Your task to perform on an android device: Go to Android settings Image 0: 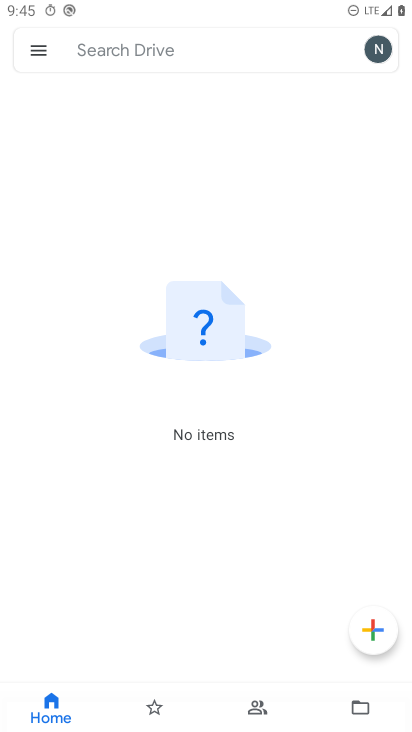
Step 0: press home button
Your task to perform on an android device: Go to Android settings Image 1: 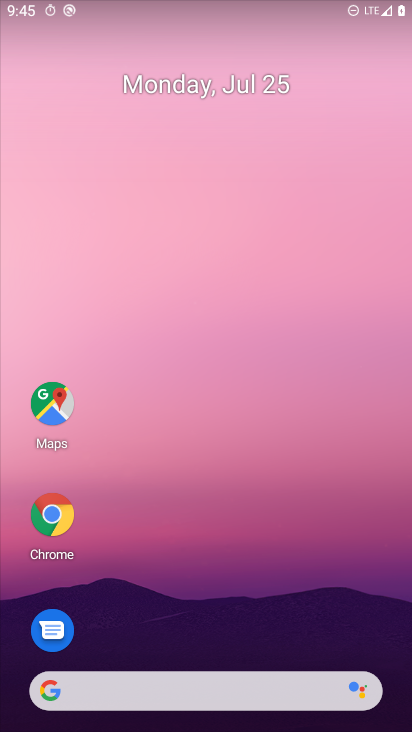
Step 1: drag from (29, 688) to (219, 191)
Your task to perform on an android device: Go to Android settings Image 2: 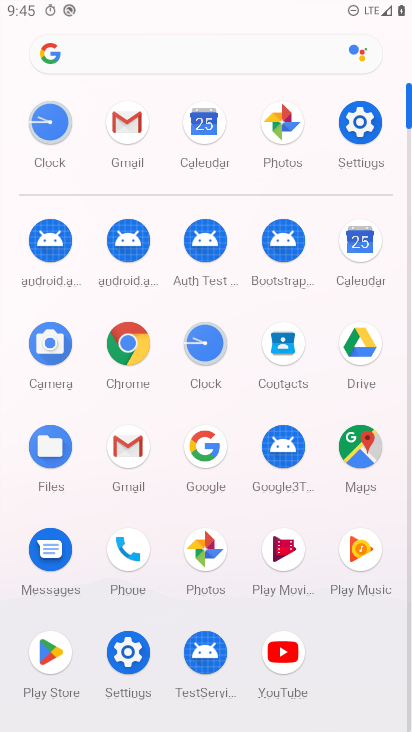
Step 2: click (130, 671)
Your task to perform on an android device: Go to Android settings Image 3: 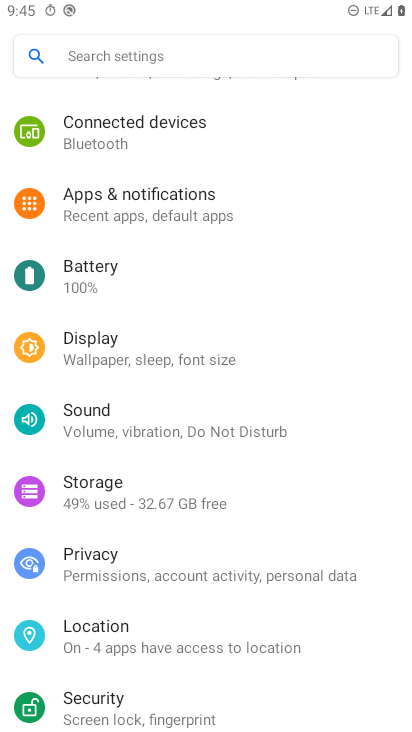
Step 3: drag from (222, 698) to (316, 293)
Your task to perform on an android device: Go to Android settings Image 4: 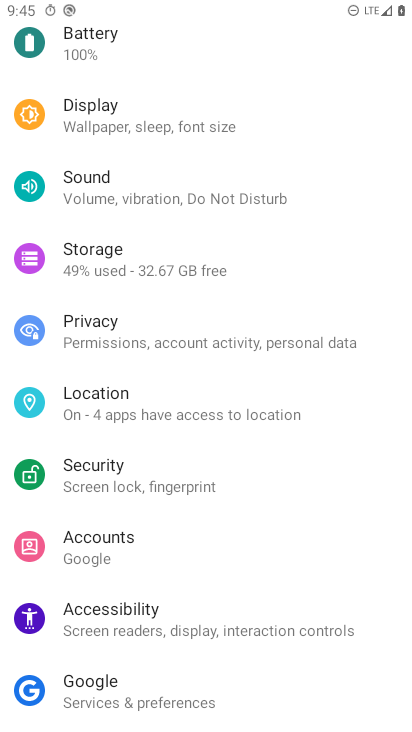
Step 4: drag from (332, 702) to (403, 356)
Your task to perform on an android device: Go to Android settings Image 5: 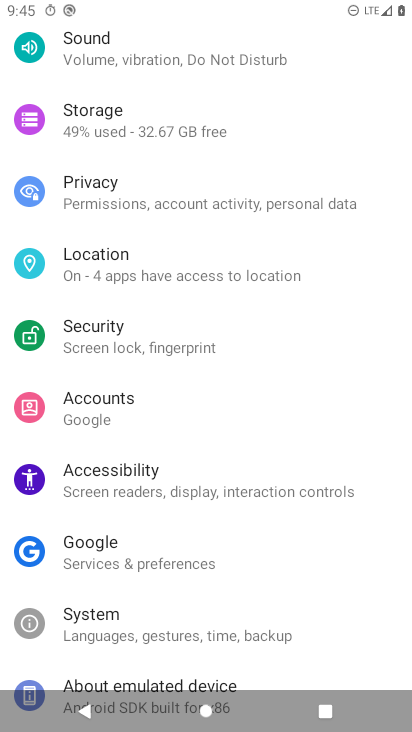
Step 5: click (133, 684)
Your task to perform on an android device: Go to Android settings Image 6: 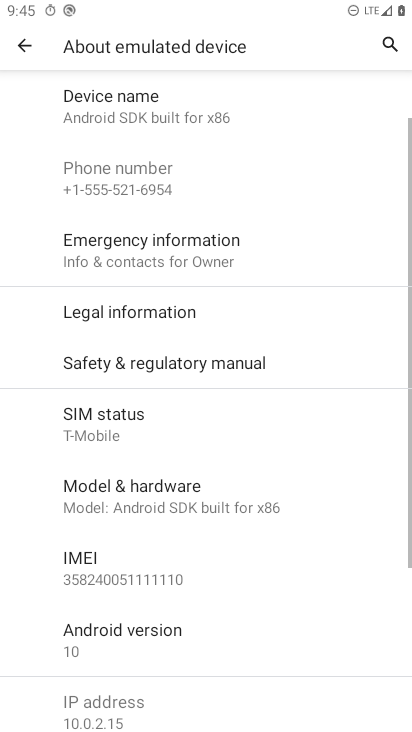
Step 6: click (138, 681)
Your task to perform on an android device: Go to Android settings Image 7: 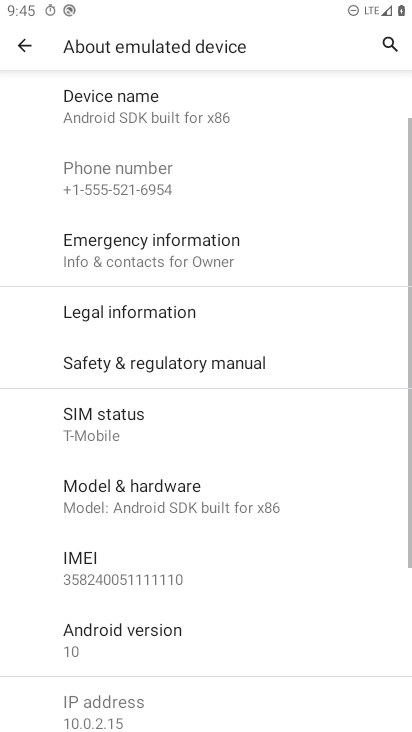
Step 7: click (152, 630)
Your task to perform on an android device: Go to Android settings Image 8: 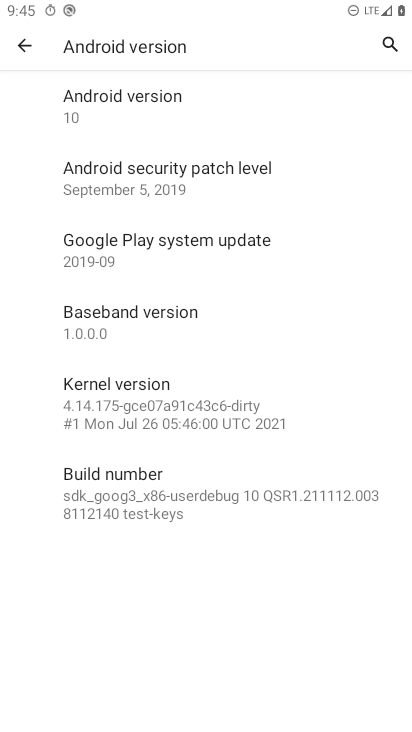
Step 8: task complete